Your task to perform on an android device: turn on location history Image 0: 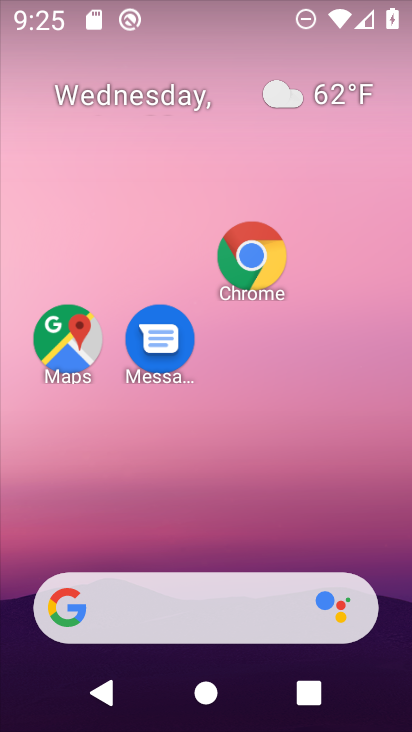
Step 0: drag from (229, 499) to (162, 187)
Your task to perform on an android device: turn on location history Image 1: 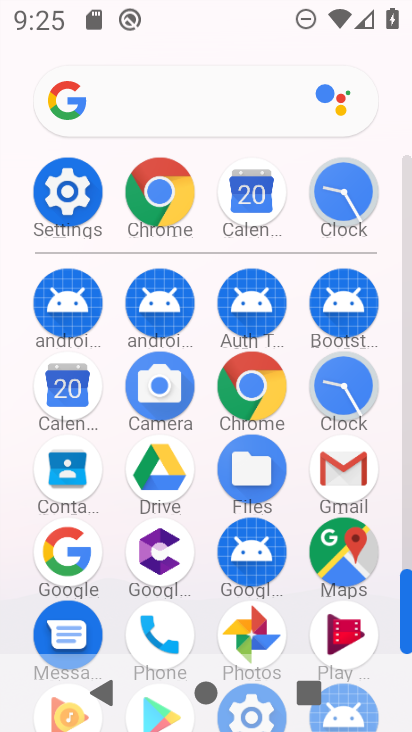
Step 1: click (347, 553)
Your task to perform on an android device: turn on location history Image 2: 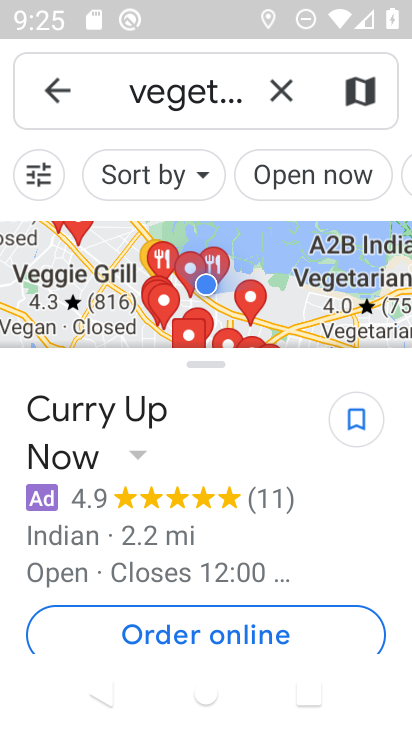
Step 2: press back button
Your task to perform on an android device: turn on location history Image 3: 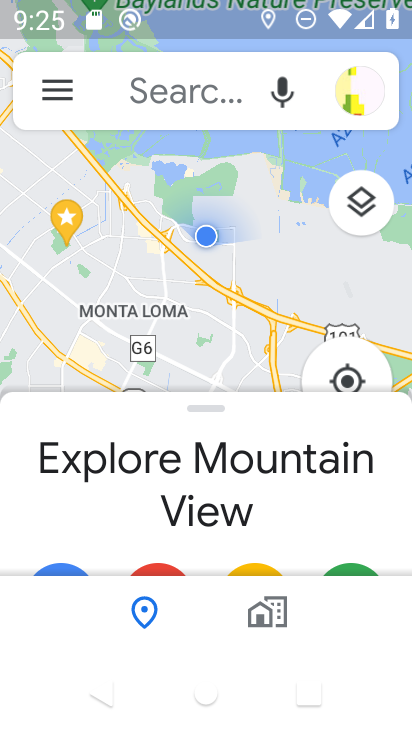
Step 3: click (59, 87)
Your task to perform on an android device: turn on location history Image 4: 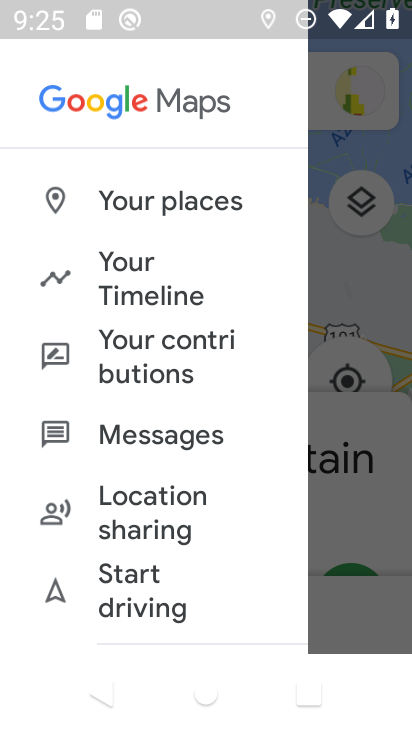
Step 4: click (148, 281)
Your task to perform on an android device: turn on location history Image 5: 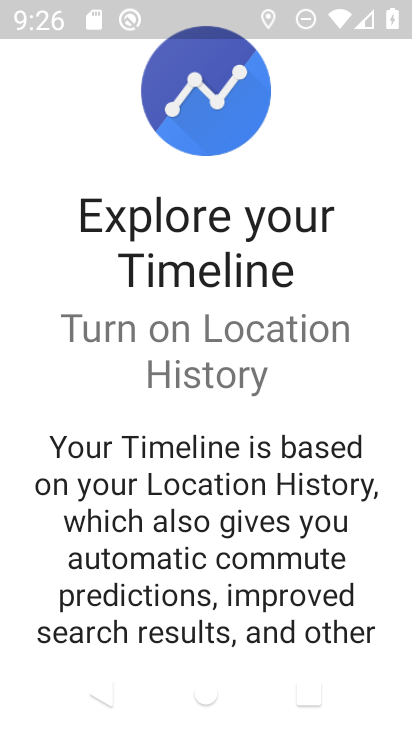
Step 5: drag from (294, 496) to (248, 71)
Your task to perform on an android device: turn on location history Image 6: 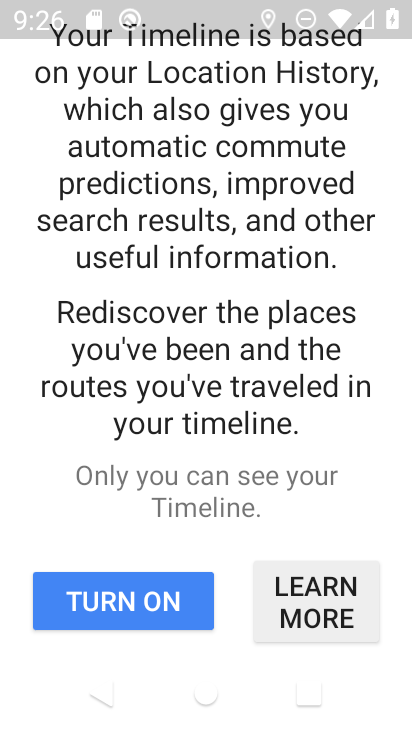
Step 6: click (147, 606)
Your task to perform on an android device: turn on location history Image 7: 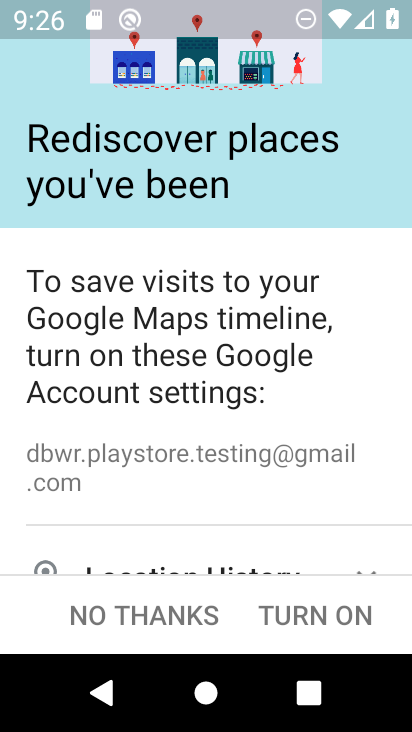
Step 7: click (173, 614)
Your task to perform on an android device: turn on location history Image 8: 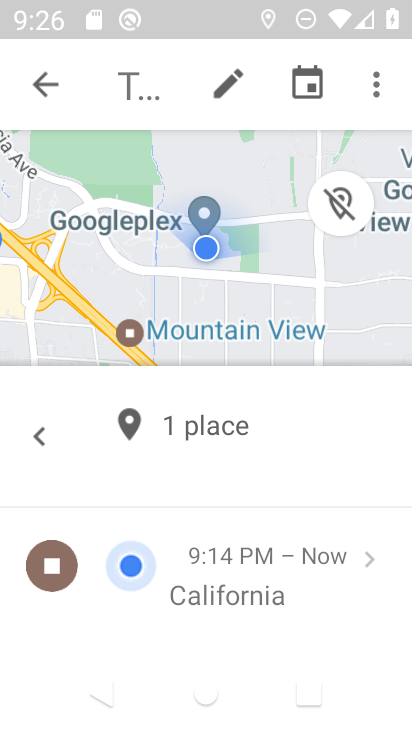
Step 8: click (371, 79)
Your task to perform on an android device: turn on location history Image 9: 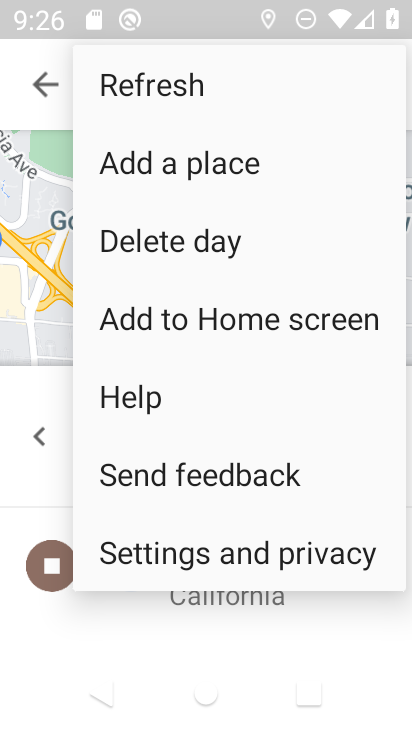
Step 9: drag from (294, 361) to (285, 166)
Your task to perform on an android device: turn on location history Image 10: 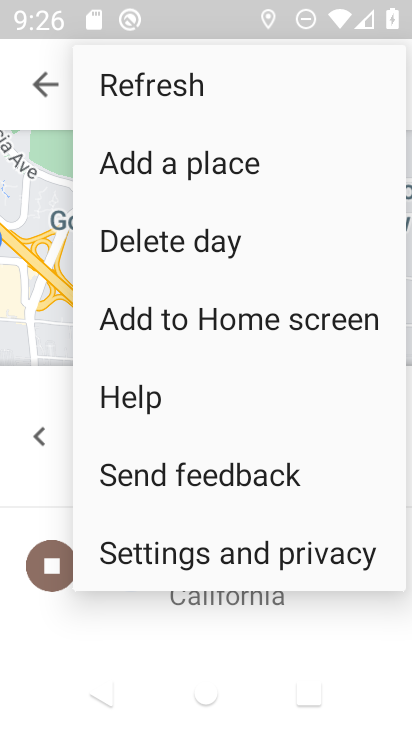
Step 10: click (258, 557)
Your task to perform on an android device: turn on location history Image 11: 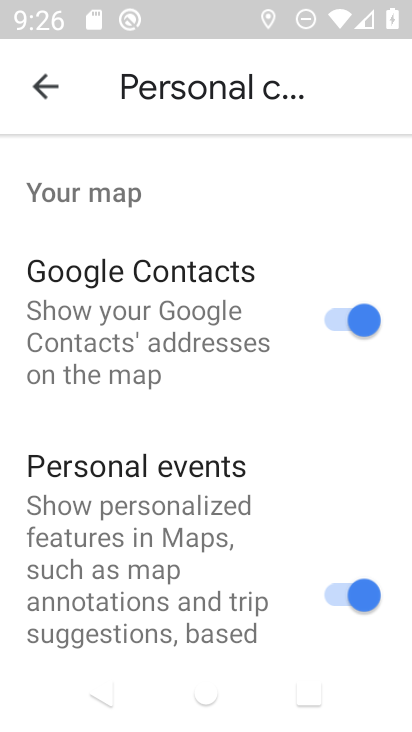
Step 11: drag from (270, 445) to (254, 108)
Your task to perform on an android device: turn on location history Image 12: 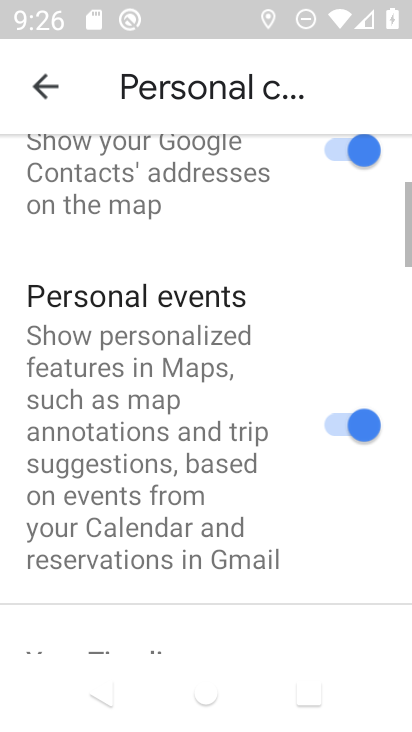
Step 12: drag from (171, 476) to (155, 161)
Your task to perform on an android device: turn on location history Image 13: 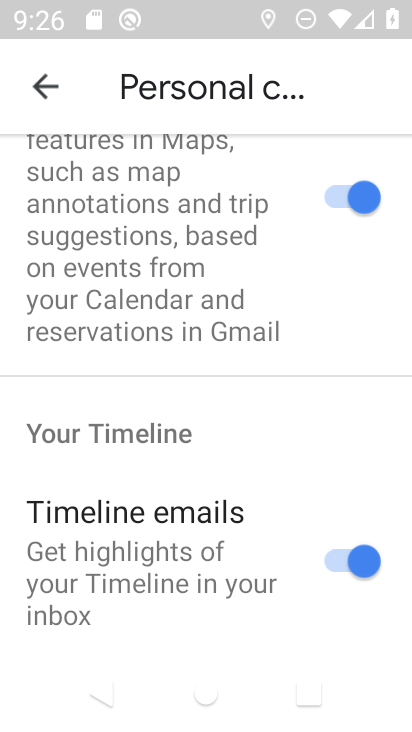
Step 13: drag from (191, 544) to (163, 152)
Your task to perform on an android device: turn on location history Image 14: 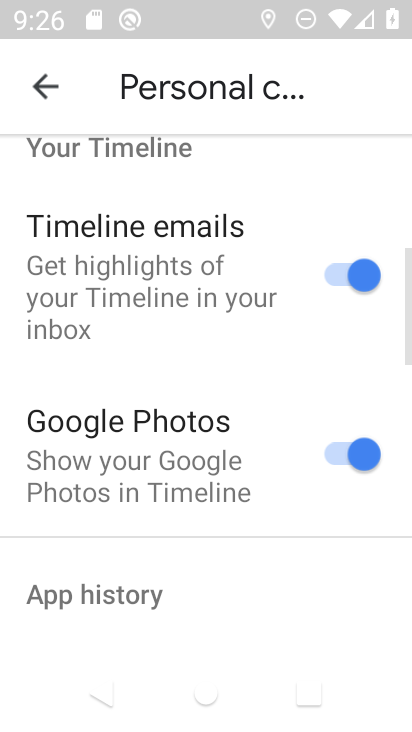
Step 14: drag from (218, 561) to (151, 157)
Your task to perform on an android device: turn on location history Image 15: 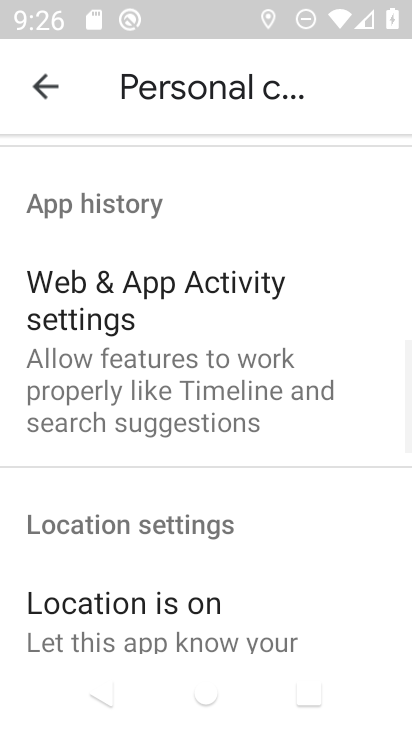
Step 15: drag from (129, 525) to (142, 327)
Your task to perform on an android device: turn on location history Image 16: 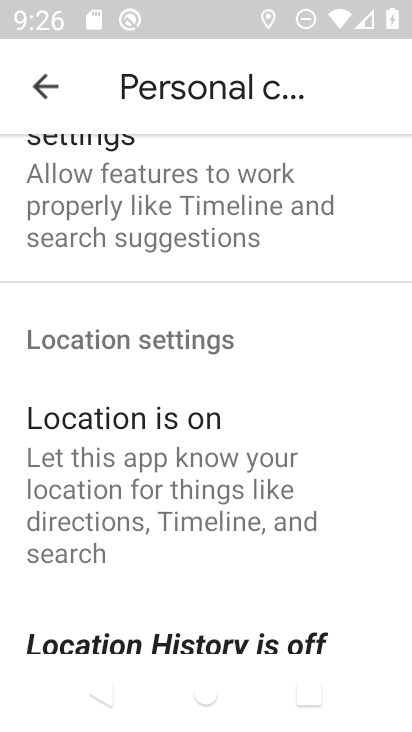
Step 16: drag from (185, 616) to (208, 299)
Your task to perform on an android device: turn on location history Image 17: 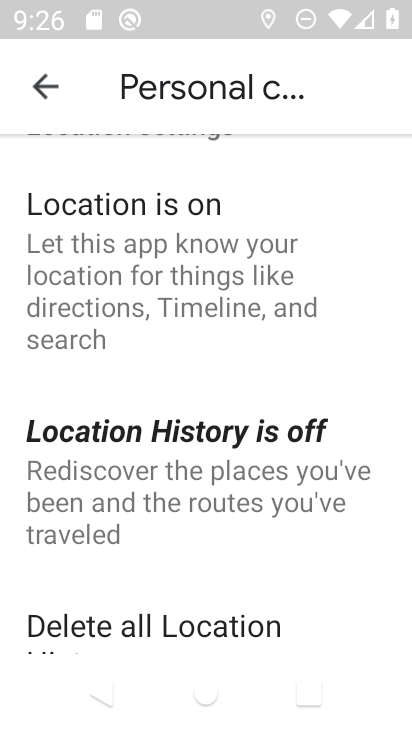
Step 17: click (225, 447)
Your task to perform on an android device: turn on location history Image 18: 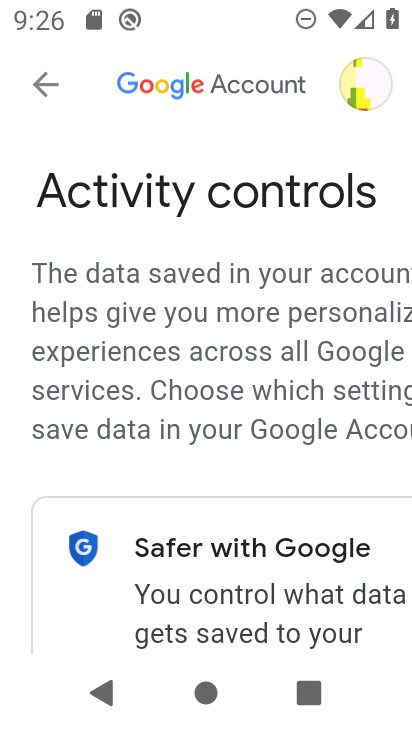
Step 18: drag from (239, 524) to (296, 117)
Your task to perform on an android device: turn on location history Image 19: 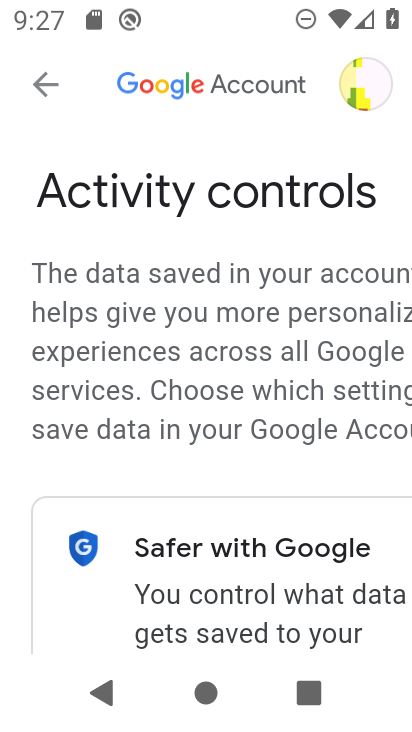
Step 19: drag from (304, 535) to (254, 94)
Your task to perform on an android device: turn on location history Image 20: 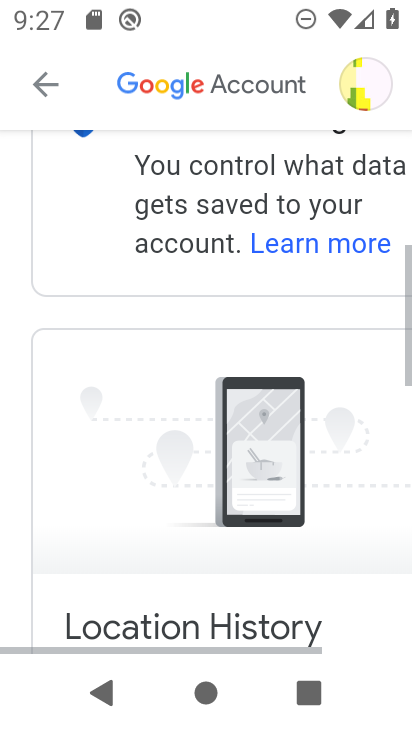
Step 20: drag from (240, 552) to (256, 245)
Your task to perform on an android device: turn on location history Image 21: 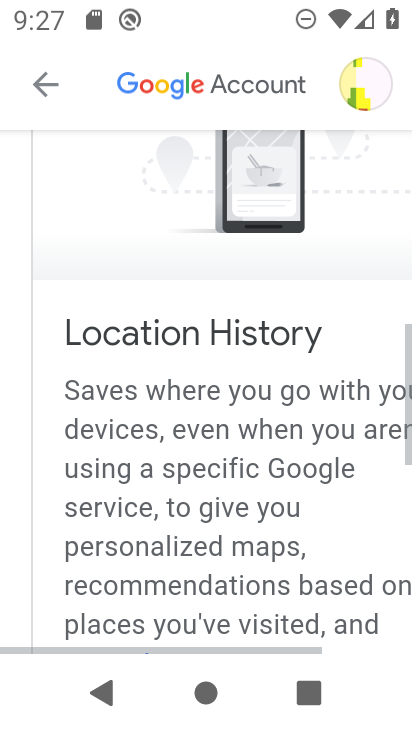
Step 21: drag from (276, 470) to (278, 217)
Your task to perform on an android device: turn on location history Image 22: 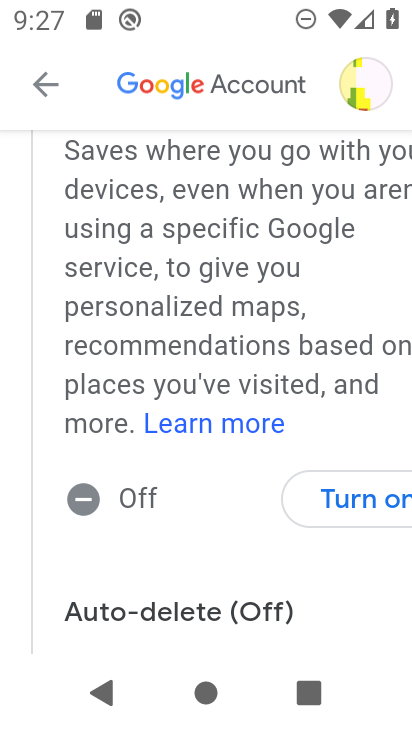
Step 22: drag from (214, 567) to (209, 473)
Your task to perform on an android device: turn on location history Image 23: 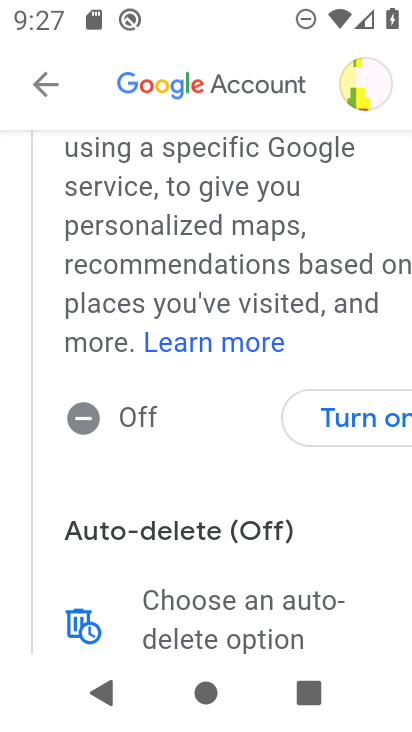
Step 23: click (347, 415)
Your task to perform on an android device: turn on location history Image 24: 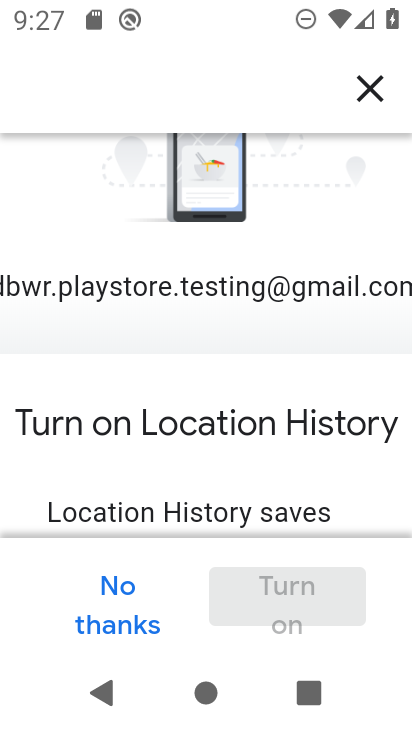
Step 24: drag from (318, 440) to (262, 104)
Your task to perform on an android device: turn on location history Image 25: 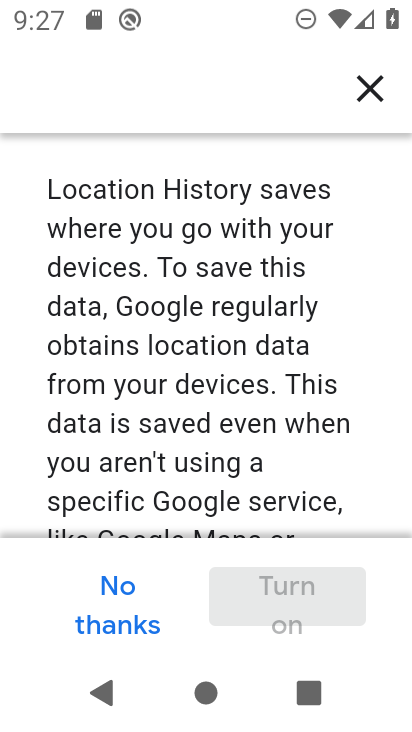
Step 25: drag from (319, 473) to (292, 146)
Your task to perform on an android device: turn on location history Image 26: 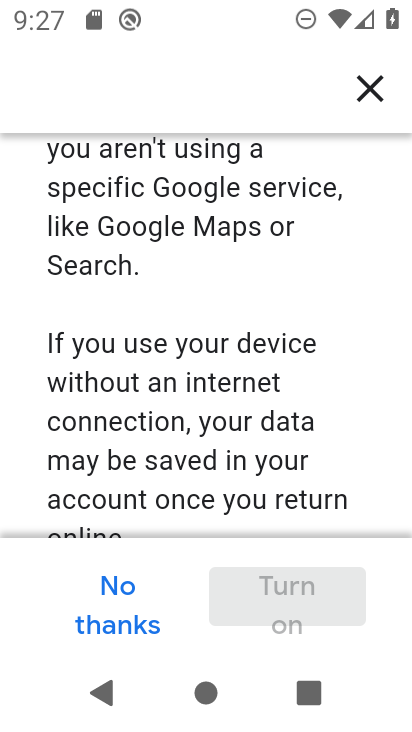
Step 26: drag from (315, 405) to (261, 132)
Your task to perform on an android device: turn on location history Image 27: 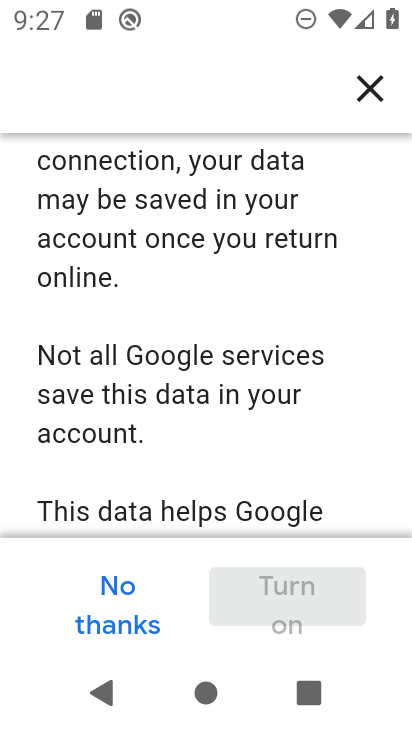
Step 27: drag from (231, 442) to (226, 153)
Your task to perform on an android device: turn on location history Image 28: 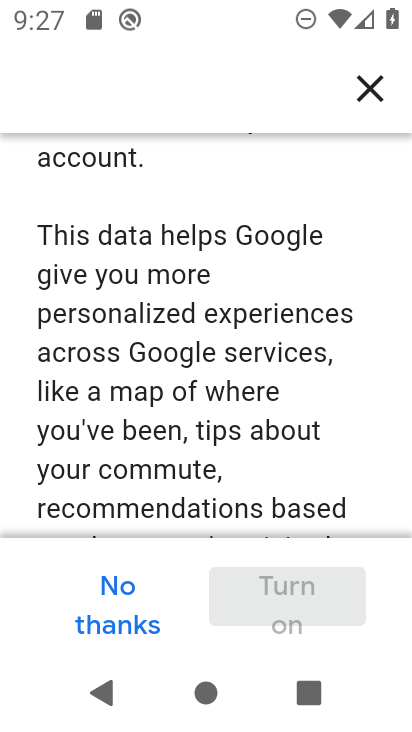
Step 28: drag from (270, 491) to (243, 211)
Your task to perform on an android device: turn on location history Image 29: 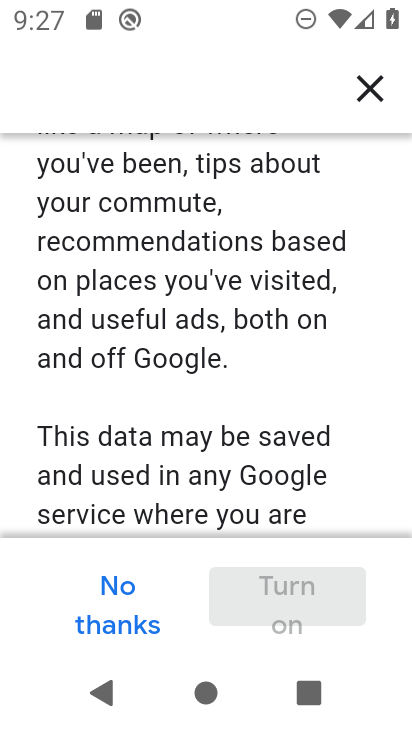
Step 29: drag from (243, 443) to (251, 235)
Your task to perform on an android device: turn on location history Image 30: 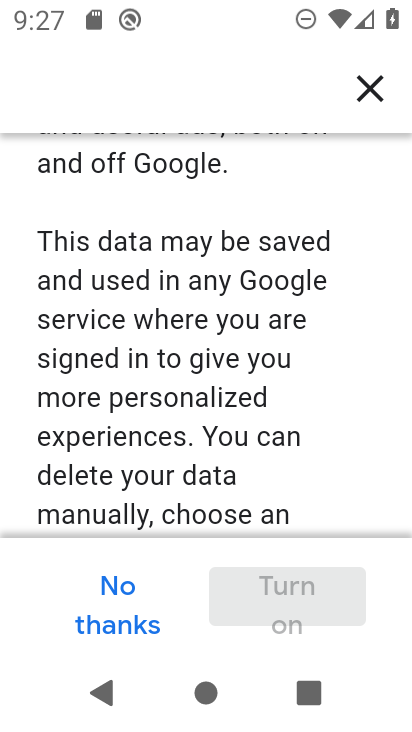
Step 30: drag from (320, 465) to (321, 164)
Your task to perform on an android device: turn on location history Image 31: 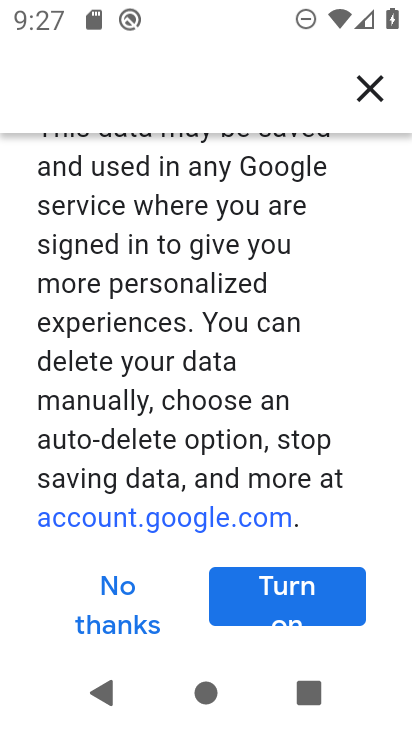
Step 31: click (265, 603)
Your task to perform on an android device: turn on location history Image 32: 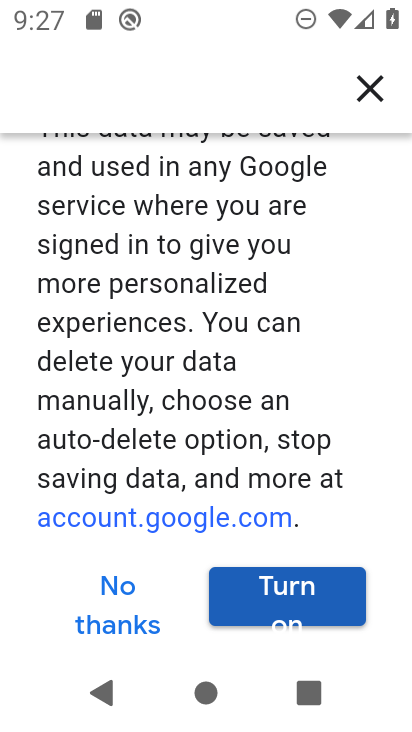
Step 32: click (303, 606)
Your task to perform on an android device: turn on location history Image 33: 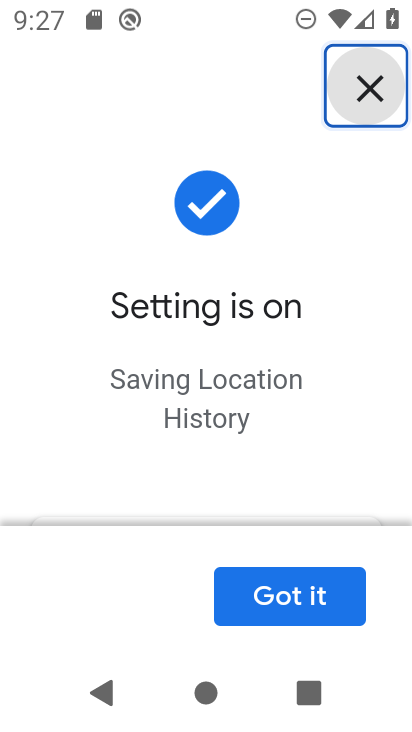
Step 33: task complete